Your task to perform on an android device: toggle pop-ups in chrome Image 0: 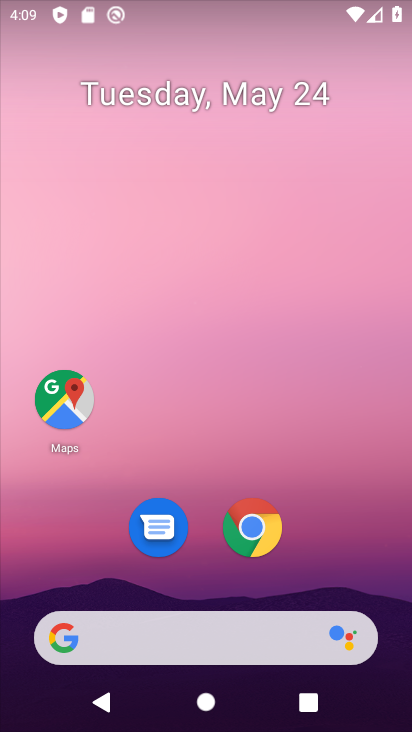
Step 0: click (264, 545)
Your task to perform on an android device: toggle pop-ups in chrome Image 1: 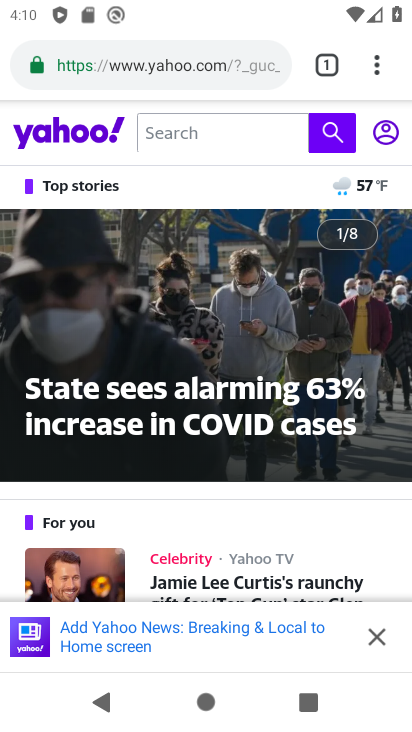
Step 1: drag from (381, 73) to (281, 576)
Your task to perform on an android device: toggle pop-ups in chrome Image 2: 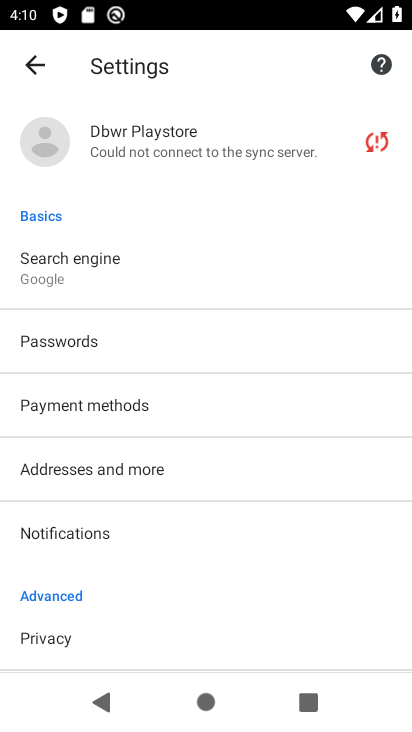
Step 2: drag from (212, 629) to (377, 210)
Your task to perform on an android device: toggle pop-ups in chrome Image 3: 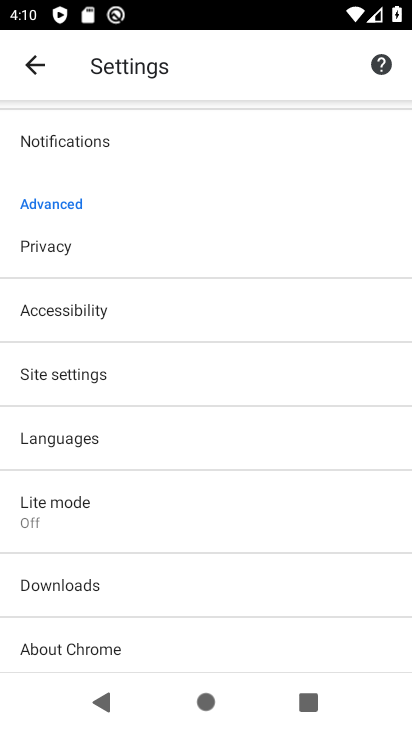
Step 3: click (189, 367)
Your task to perform on an android device: toggle pop-ups in chrome Image 4: 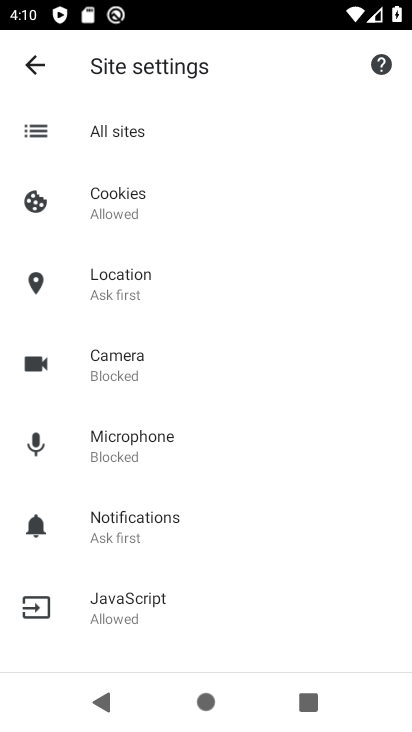
Step 4: drag from (195, 592) to (339, 229)
Your task to perform on an android device: toggle pop-ups in chrome Image 5: 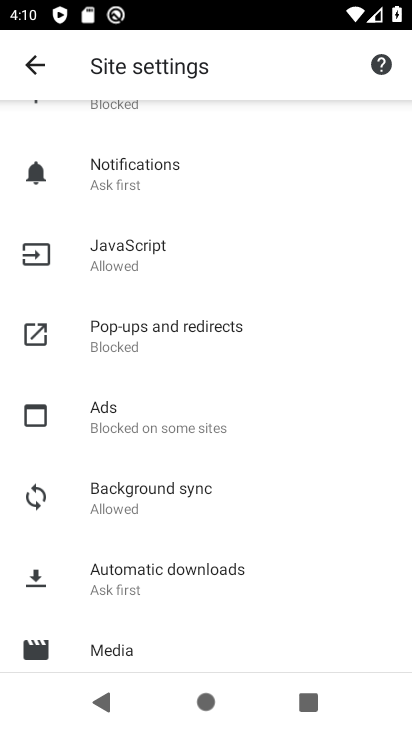
Step 5: drag from (246, 177) to (246, 555)
Your task to perform on an android device: toggle pop-ups in chrome Image 6: 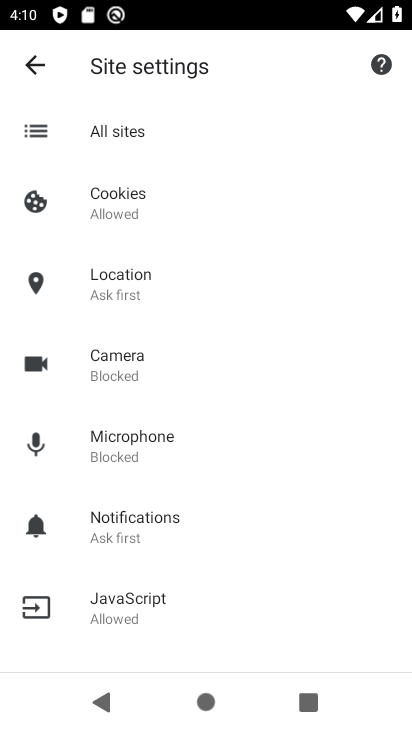
Step 6: drag from (171, 604) to (308, 179)
Your task to perform on an android device: toggle pop-ups in chrome Image 7: 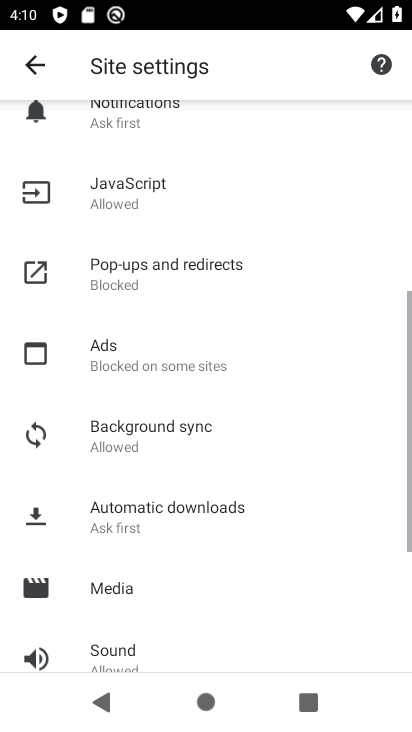
Step 7: click (251, 273)
Your task to perform on an android device: toggle pop-ups in chrome Image 8: 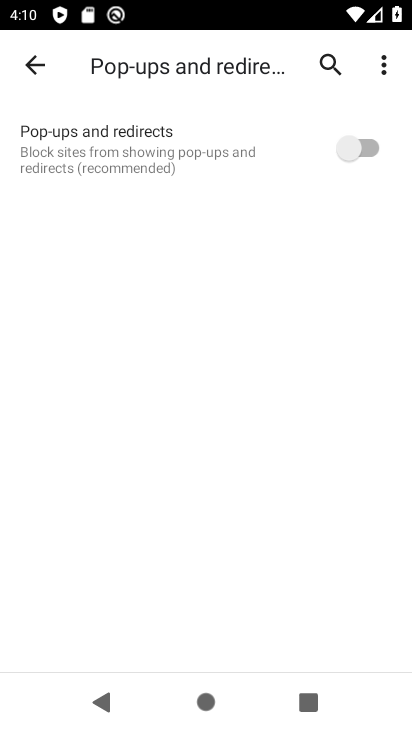
Step 8: click (398, 146)
Your task to perform on an android device: toggle pop-ups in chrome Image 9: 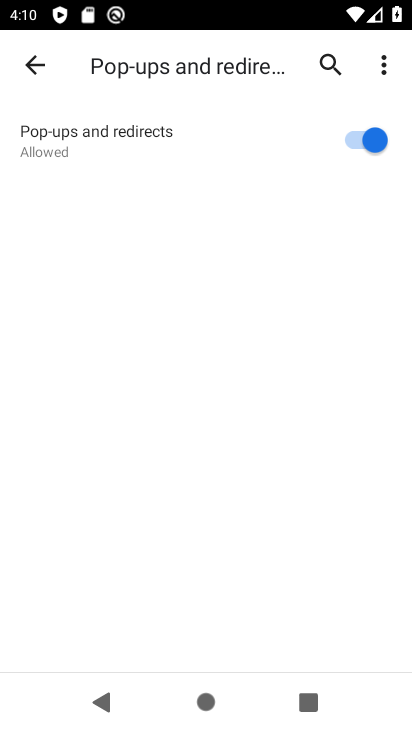
Step 9: task complete